Your task to perform on an android device: see creations saved in the google photos Image 0: 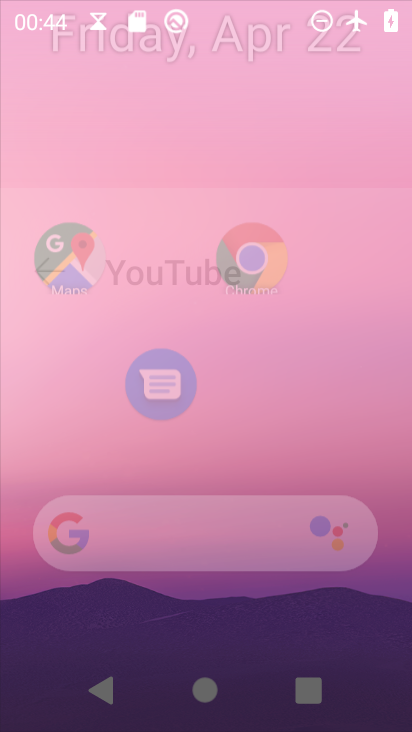
Step 0: click (164, 169)
Your task to perform on an android device: see creations saved in the google photos Image 1: 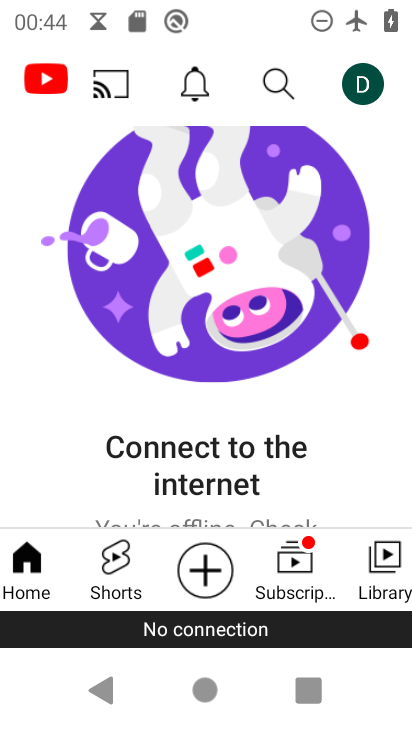
Step 1: press home button
Your task to perform on an android device: see creations saved in the google photos Image 2: 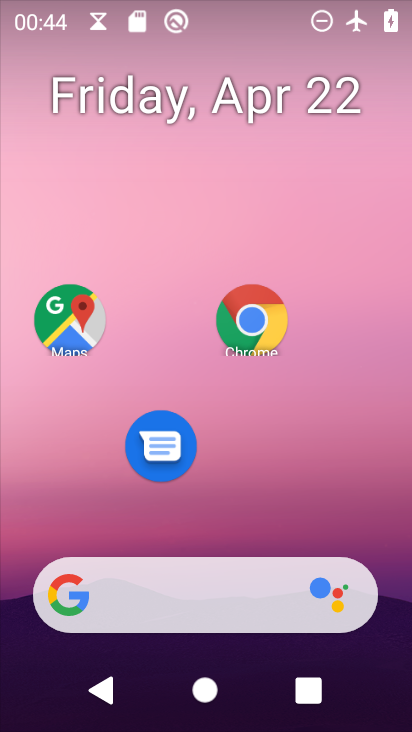
Step 2: drag from (222, 533) to (179, 122)
Your task to perform on an android device: see creations saved in the google photos Image 3: 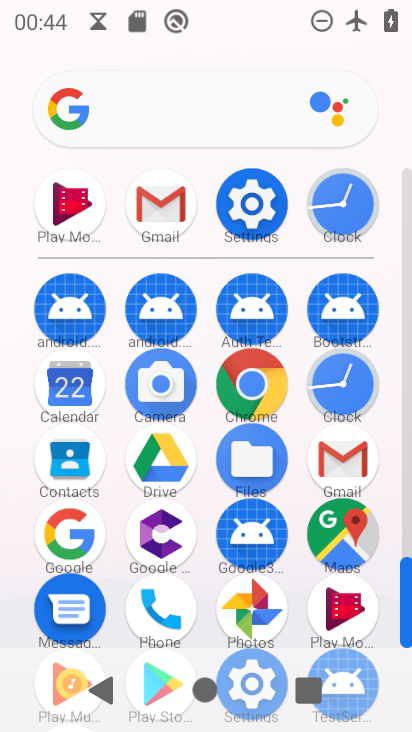
Step 3: click (244, 596)
Your task to perform on an android device: see creations saved in the google photos Image 4: 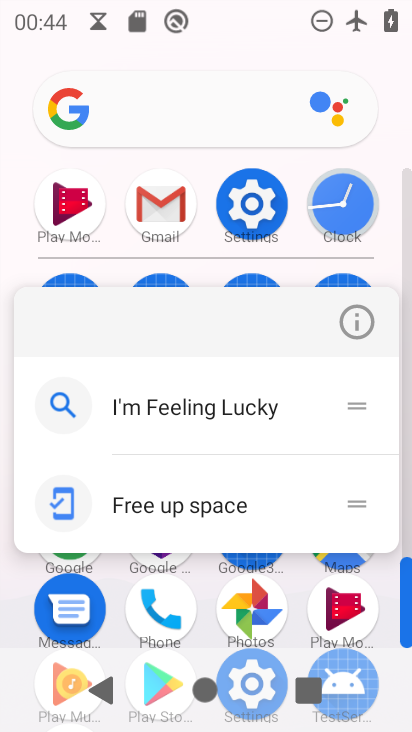
Step 4: click (356, 327)
Your task to perform on an android device: see creations saved in the google photos Image 5: 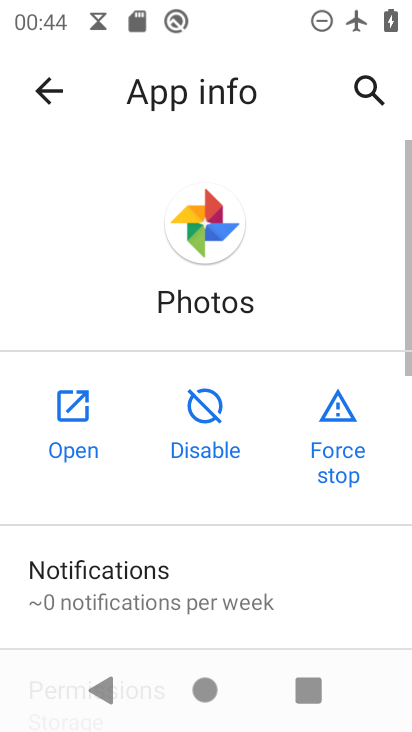
Step 5: click (90, 403)
Your task to perform on an android device: see creations saved in the google photos Image 6: 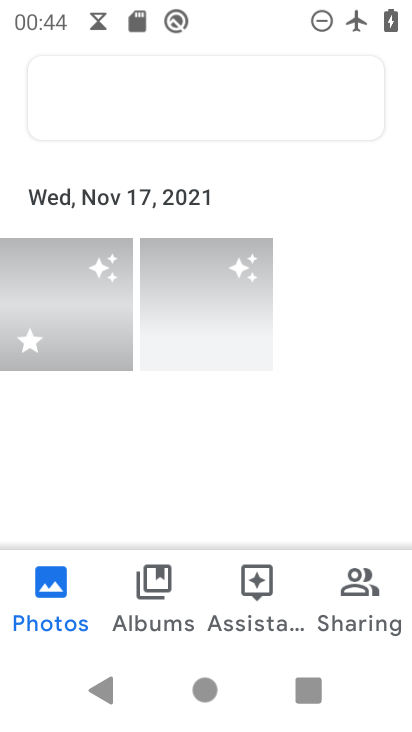
Step 6: click (160, 623)
Your task to perform on an android device: see creations saved in the google photos Image 7: 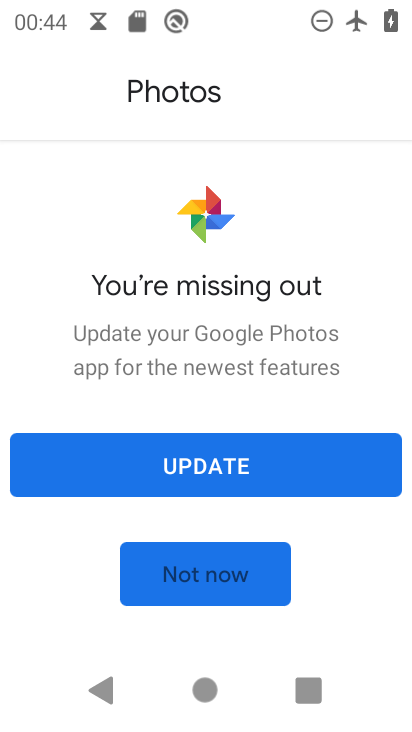
Step 7: click (215, 555)
Your task to perform on an android device: see creations saved in the google photos Image 8: 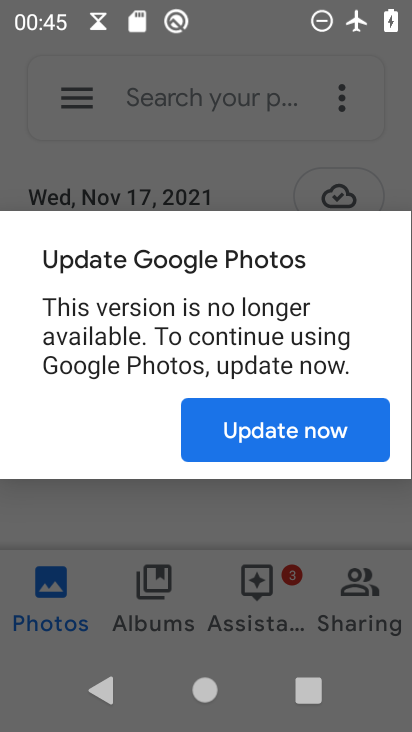
Step 8: click (304, 408)
Your task to perform on an android device: see creations saved in the google photos Image 9: 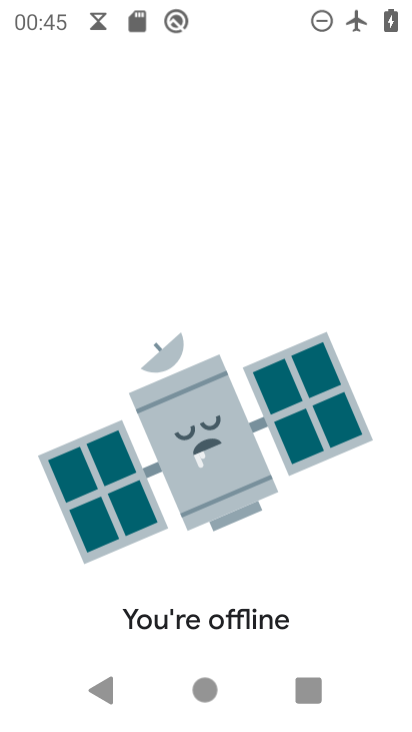
Step 9: task complete